Your task to perform on an android device: Open Maps and search for coffee Image 0: 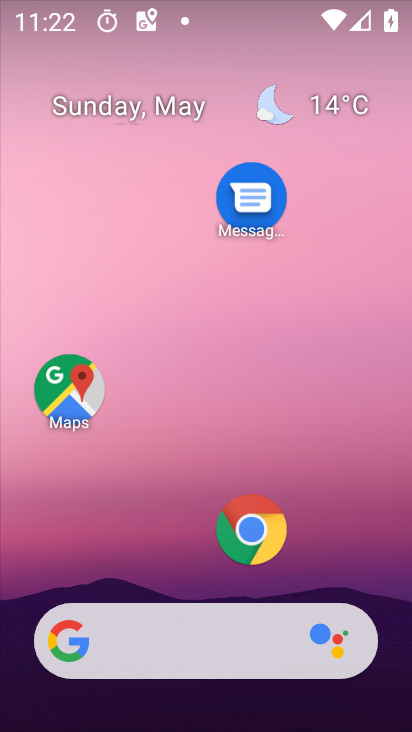
Step 0: click (71, 415)
Your task to perform on an android device: Open Maps and search for coffee Image 1: 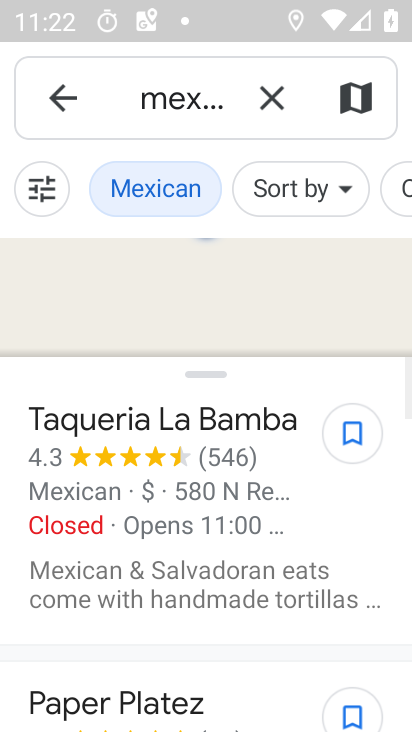
Step 1: click (272, 85)
Your task to perform on an android device: Open Maps and search for coffee Image 2: 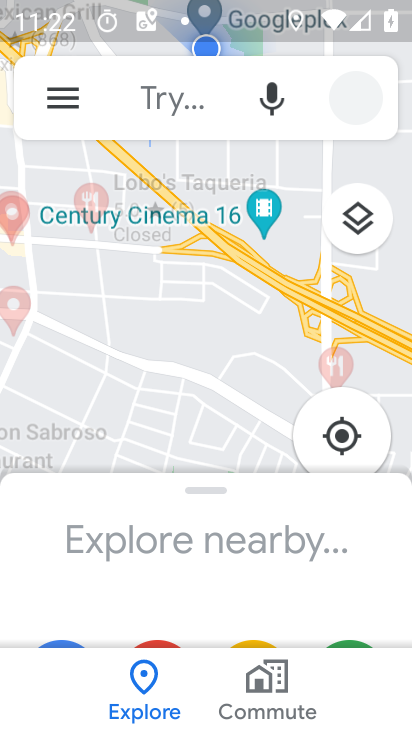
Step 2: click (188, 104)
Your task to perform on an android device: Open Maps and search for coffee Image 3: 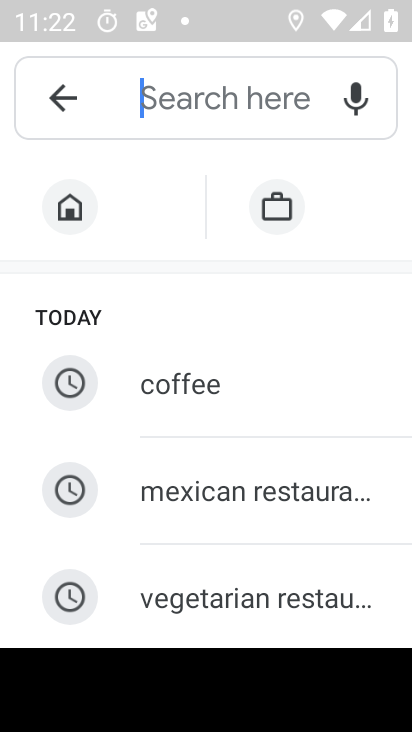
Step 3: type "coffee"
Your task to perform on an android device: Open Maps and search for coffee Image 4: 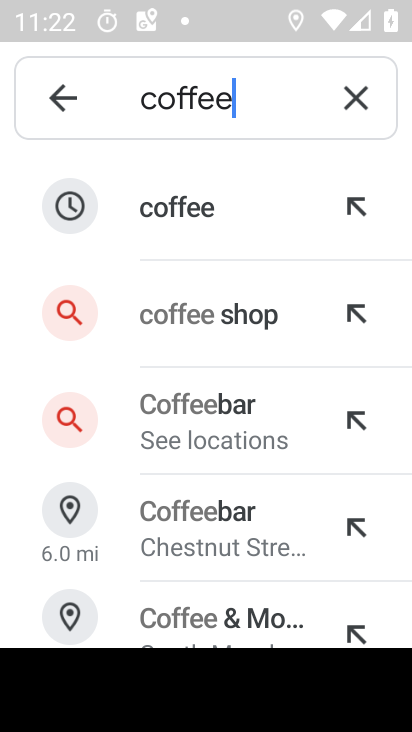
Step 4: click (198, 209)
Your task to perform on an android device: Open Maps and search for coffee Image 5: 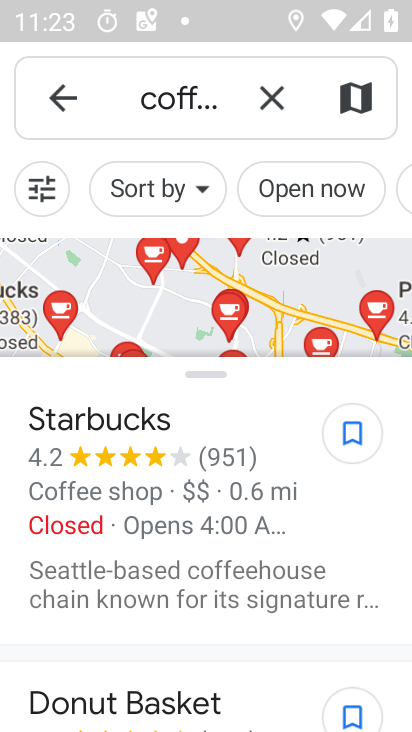
Step 5: task complete